Your task to perform on an android device: Go to Reddit.com Image 0: 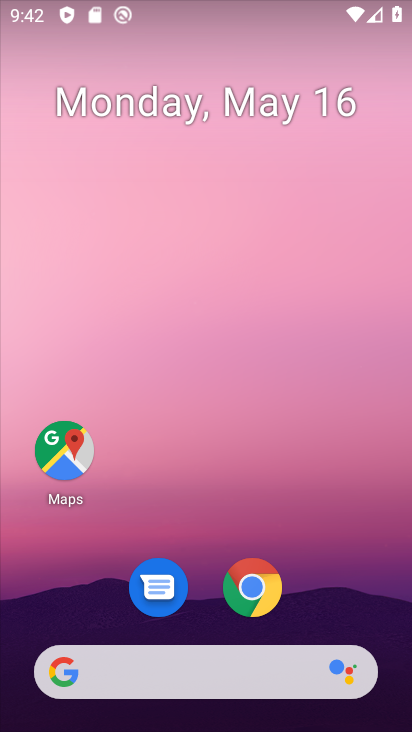
Step 0: click (240, 599)
Your task to perform on an android device: Go to Reddit.com Image 1: 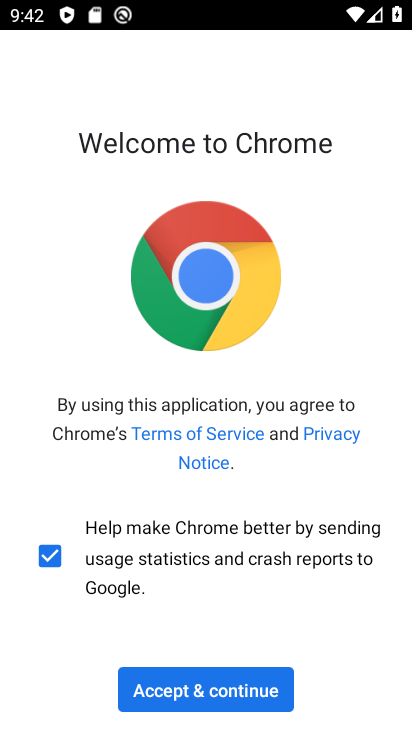
Step 1: click (226, 692)
Your task to perform on an android device: Go to Reddit.com Image 2: 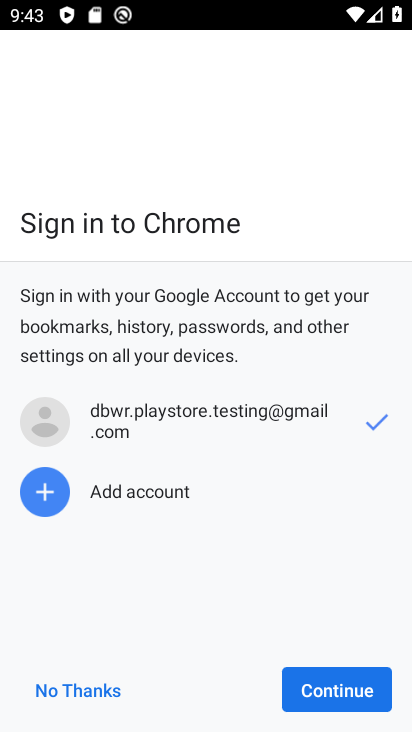
Step 2: click (355, 680)
Your task to perform on an android device: Go to Reddit.com Image 3: 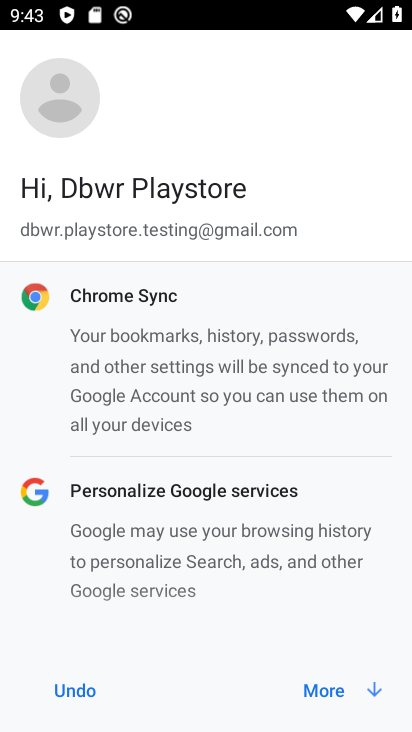
Step 3: click (360, 676)
Your task to perform on an android device: Go to Reddit.com Image 4: 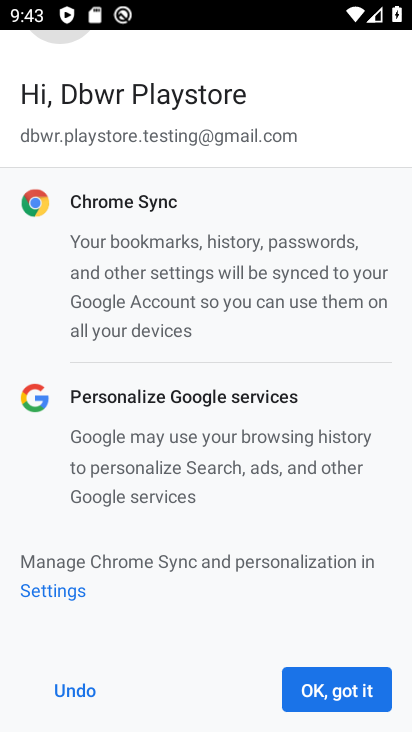
Step 4: click (367, 678)
Your task to perform on an android device: Go to Reddit.com Image 5: 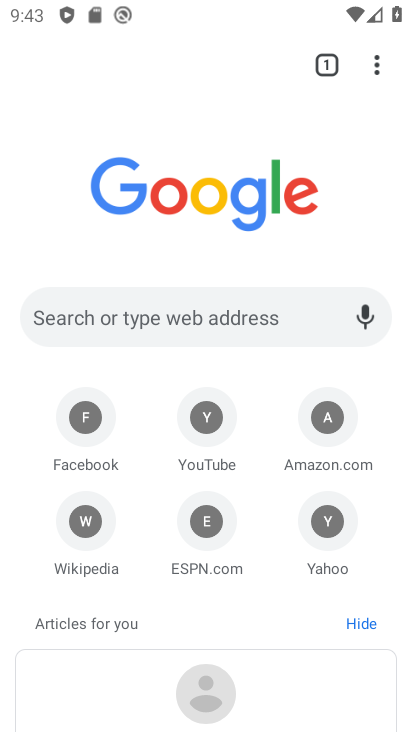
Step 5: click (167, 63)
Your task to perform on an android device: Go to Reddit.com Image 6: 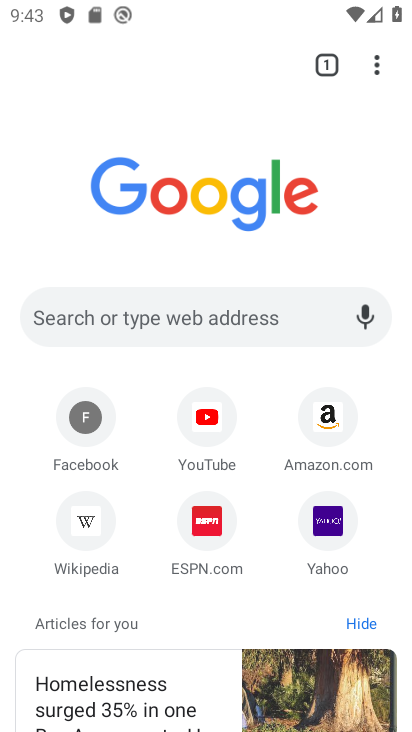
Step 6: click (188, 303)
Your task to perform on an android device: Go to Reddit.com Image 7: 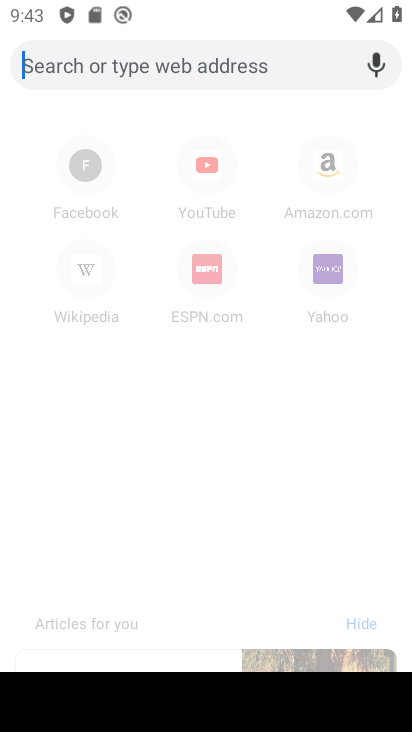
Step 7: type "reddit"
Your task to perform on an android device: Go to Reddit.com Image 8: 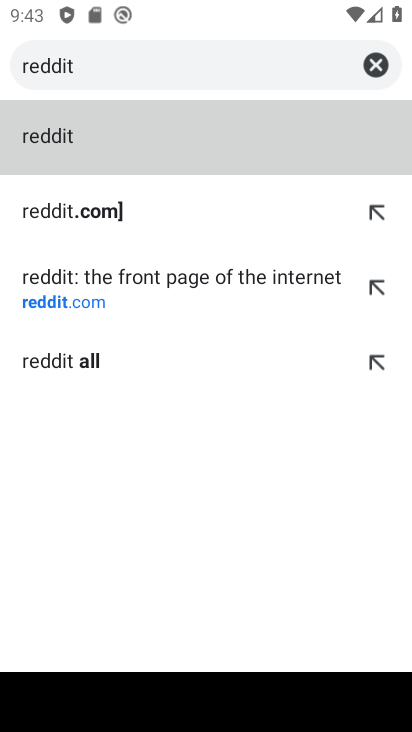
Step 8: click (166, 288)
Your task to perform on an android device: Go to Reddit.com Image 9: 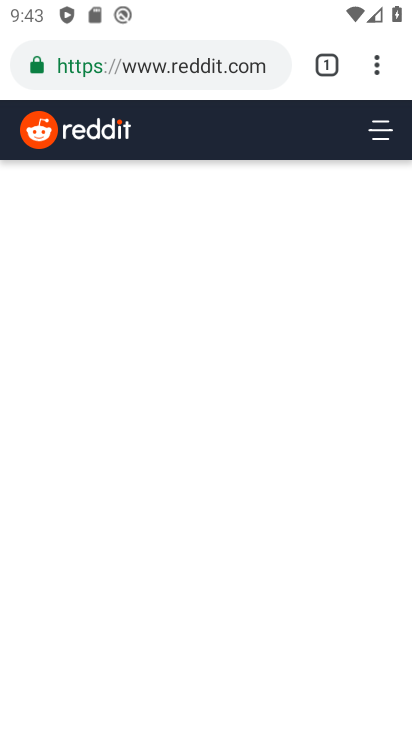
Step 9: task complete